Your task to perform on an android device: change timer sound Image 0: 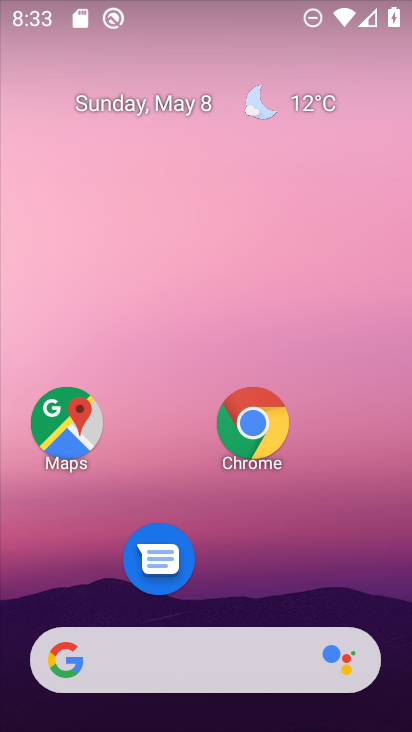
Step 0: drag from (367, 598) to (355, 5)
Your task to perform on an android device: change timer sound Image 1: 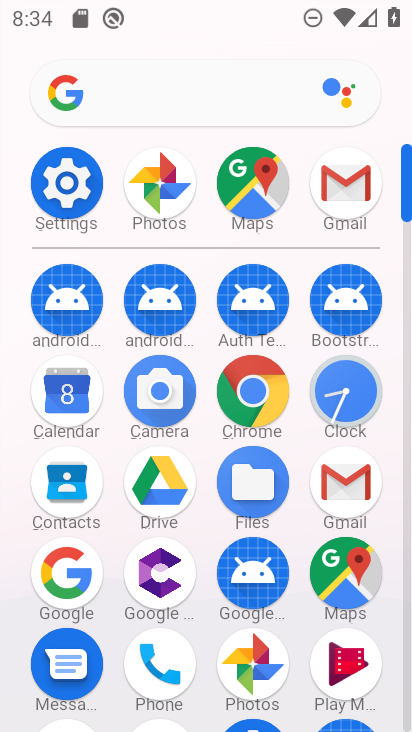
Step 1: click (334, 394)
Your task to perform on an android device: change timer sound Image 2: 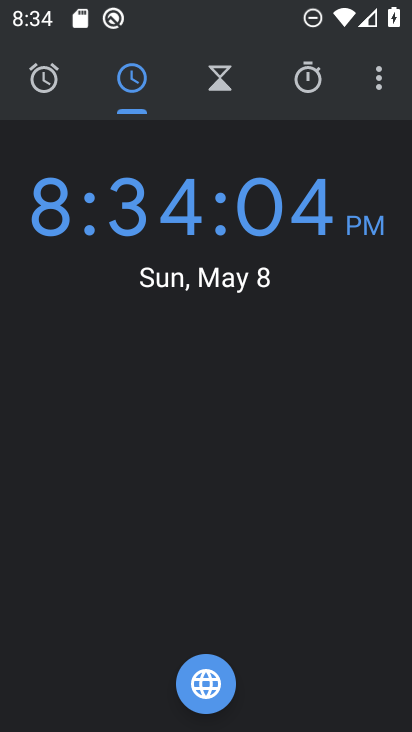
Step 2: click (382, 86)
Your task to perform on an android device: change timer sound Image 3: 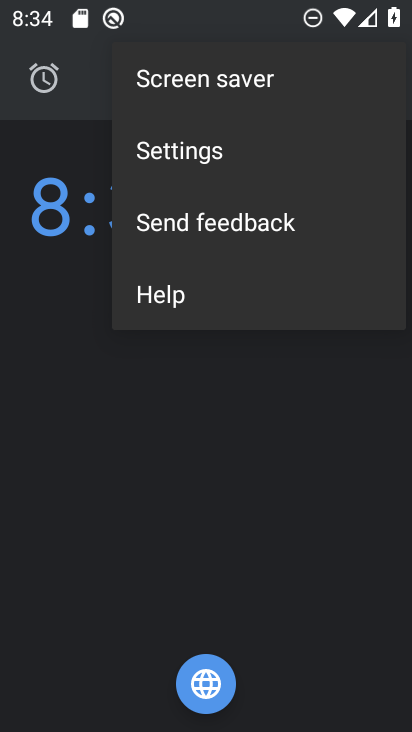
Step 3: click (222, 156)
Your task to perform on an android device: change timer sound Image 4: 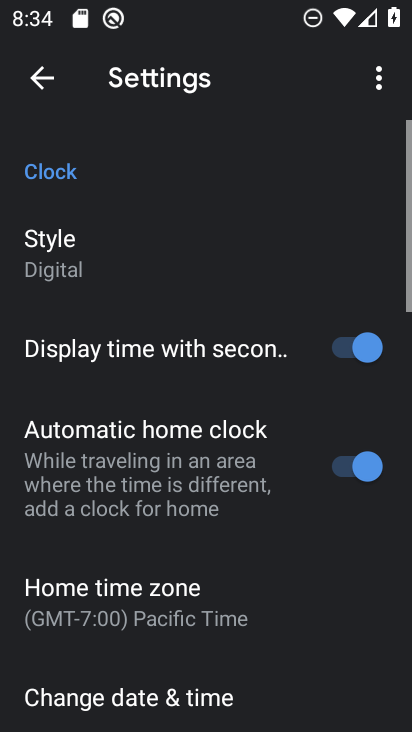
Step 4: drag from (241, 492) to (212, 44)
Your task to perform on an android device: change timer sound Image 5: 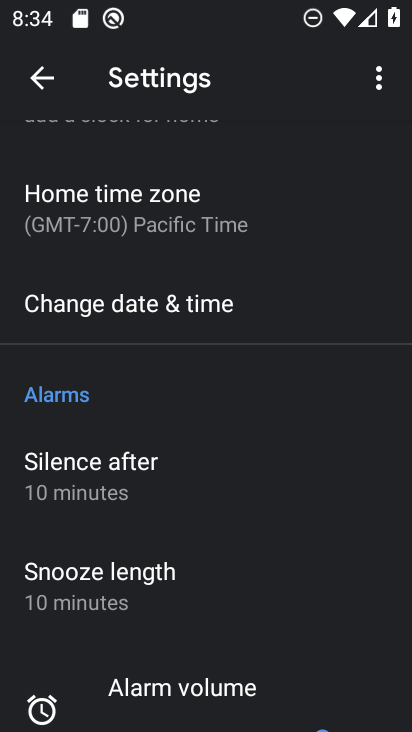
Step 5: drag from (230, 438) to (205, 112)
Your task to perform on an android device: change timer sound Image 6: 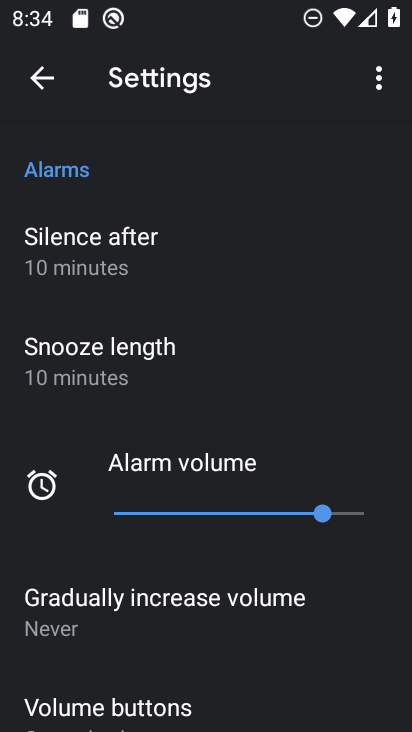
Step 6: drag from (162, 487) to (148, 188)
Your task to perform on an android device: change timer sound Image 7: 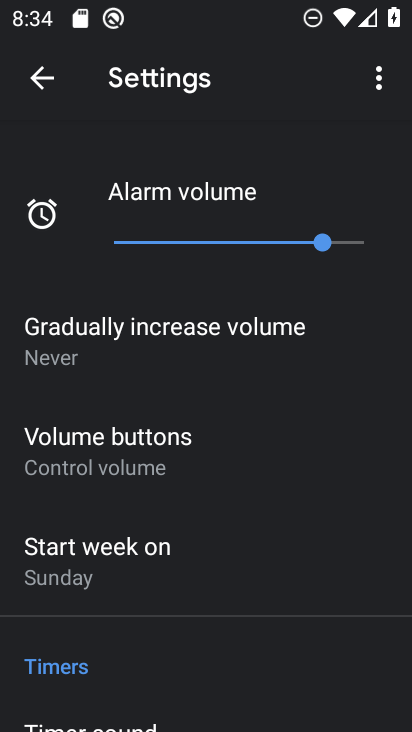
Step 7: drag from (170, 585) to (144, 265)
Your task to perform on an android device: change timer sound Image 8: 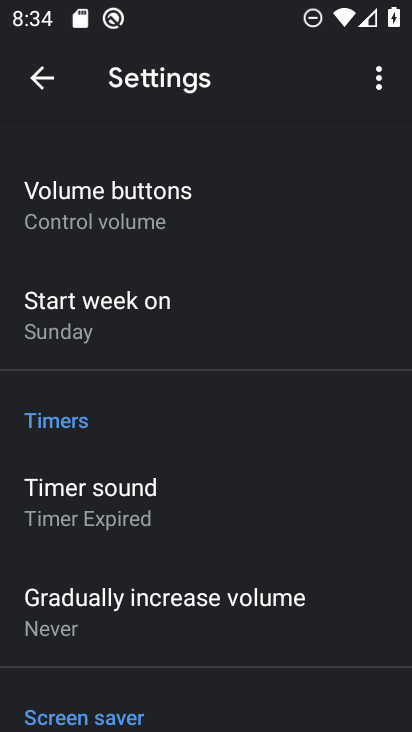
Step 8: click (63, 494)
Your task to perform on an android device: change timer sound Image 9: 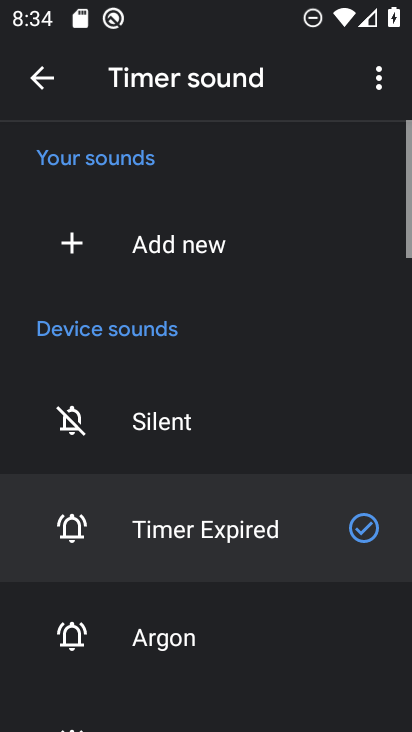
Step 9: drag from (134, 566) to (98, 425)
Your task to perform on an android device: change timer sound Image 10: 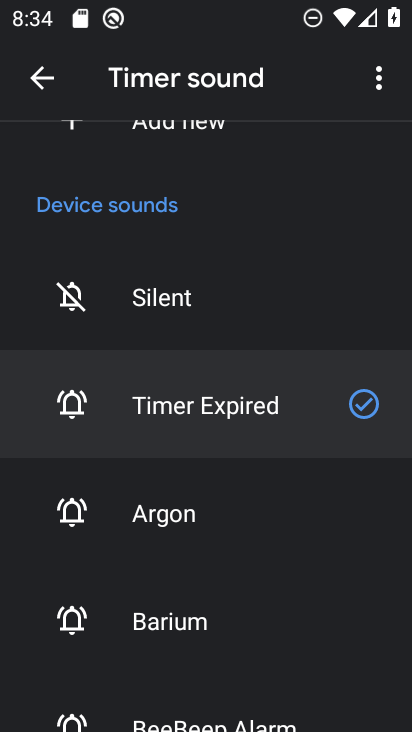
Step 10: click (124, 636)
Your task to perform on an android device: change timer sound Image 11: 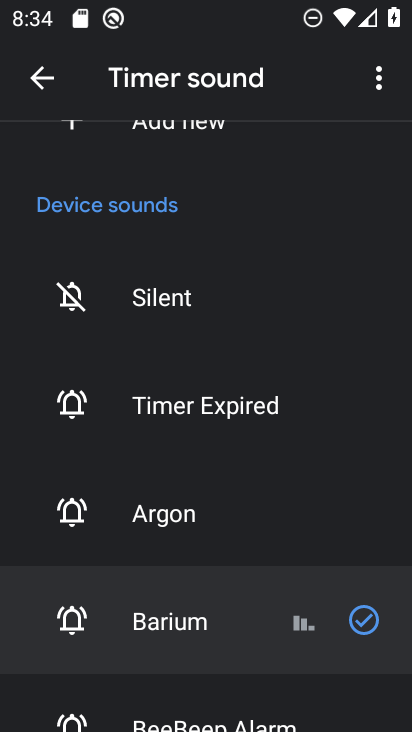
Step 11: task complete